Your task to perform on an android device: install app "Gmail" Image 0: 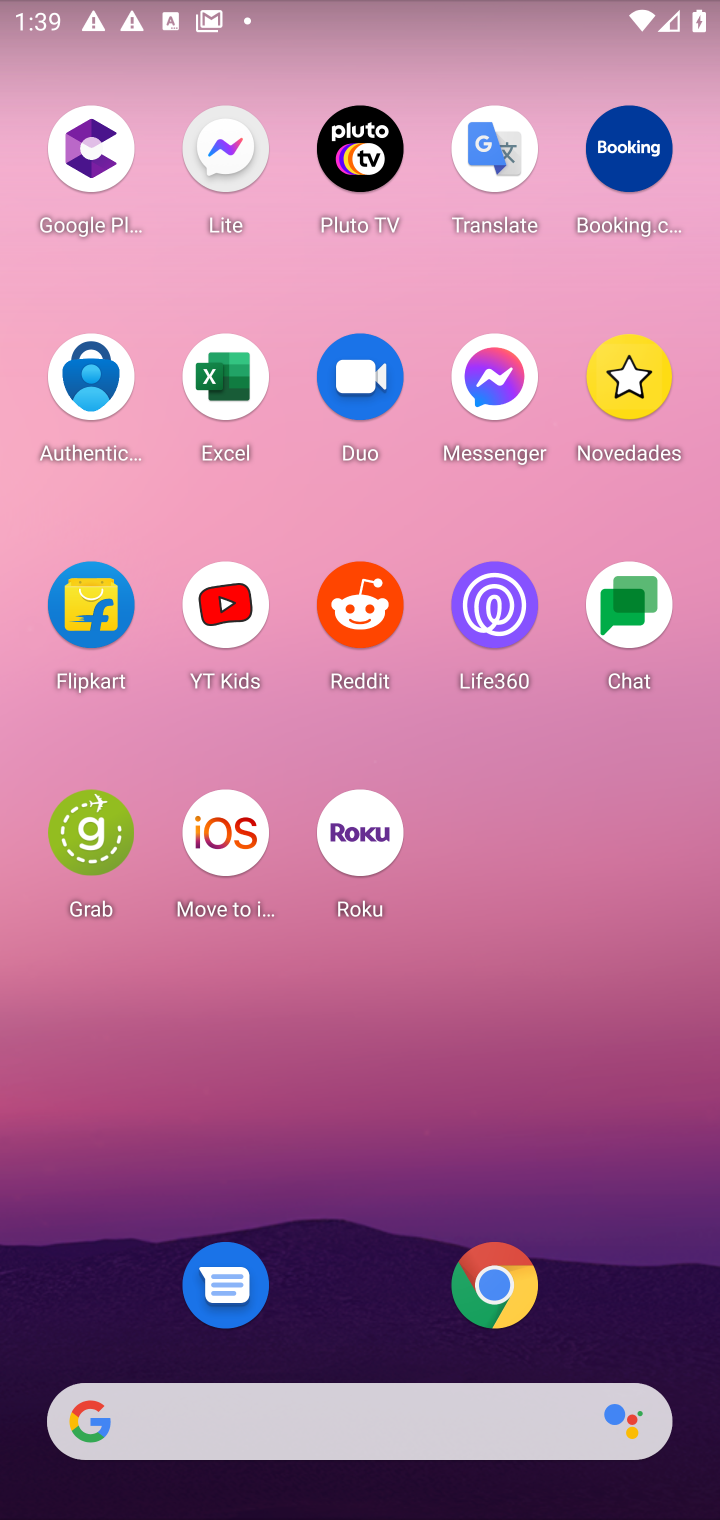
Step 0: drag from (600, 1195) to (433, 237)
Your task to perform on an android device: install app "Gmail" Image 1: 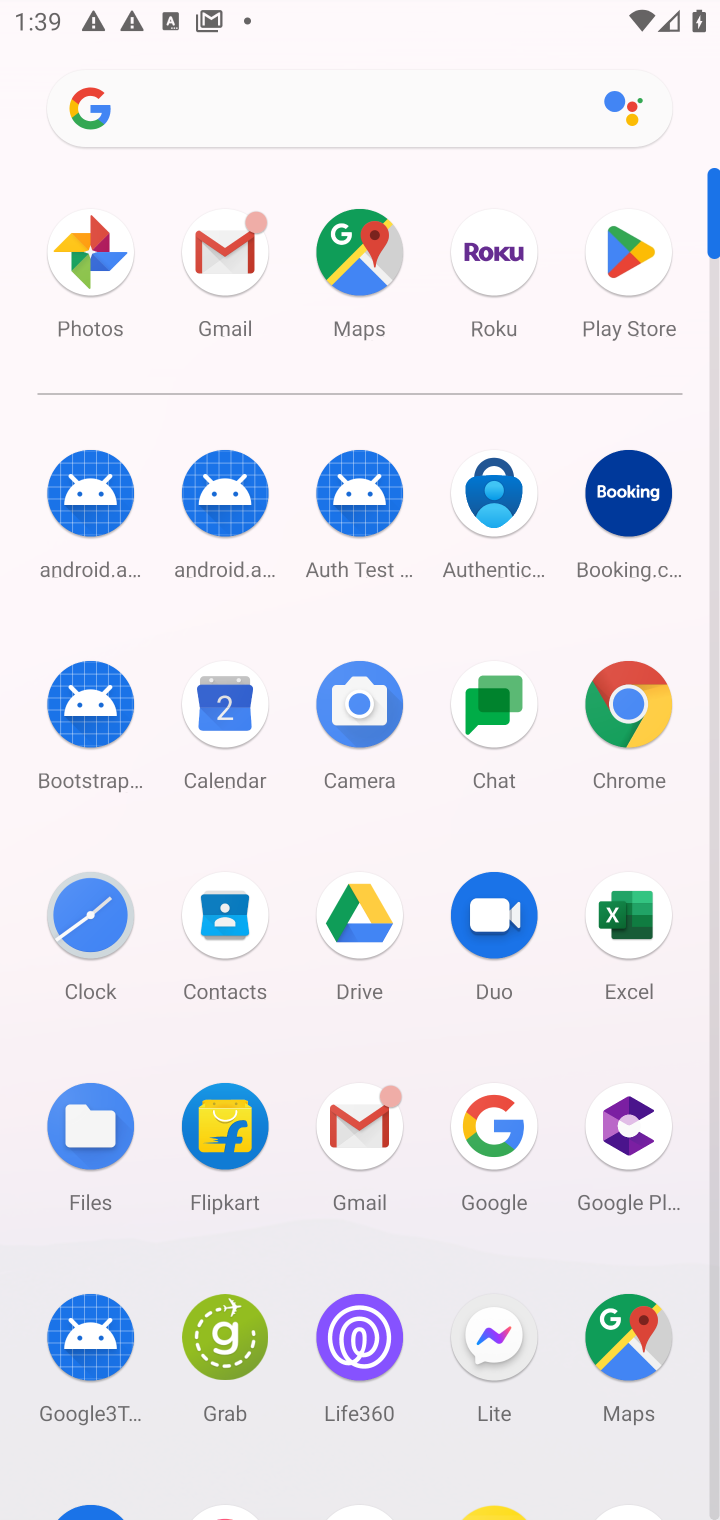
Step 1: drag from (437, 1260) to (525, 484)
Your task to perform on an android device: install app "Gmail" Image 2: 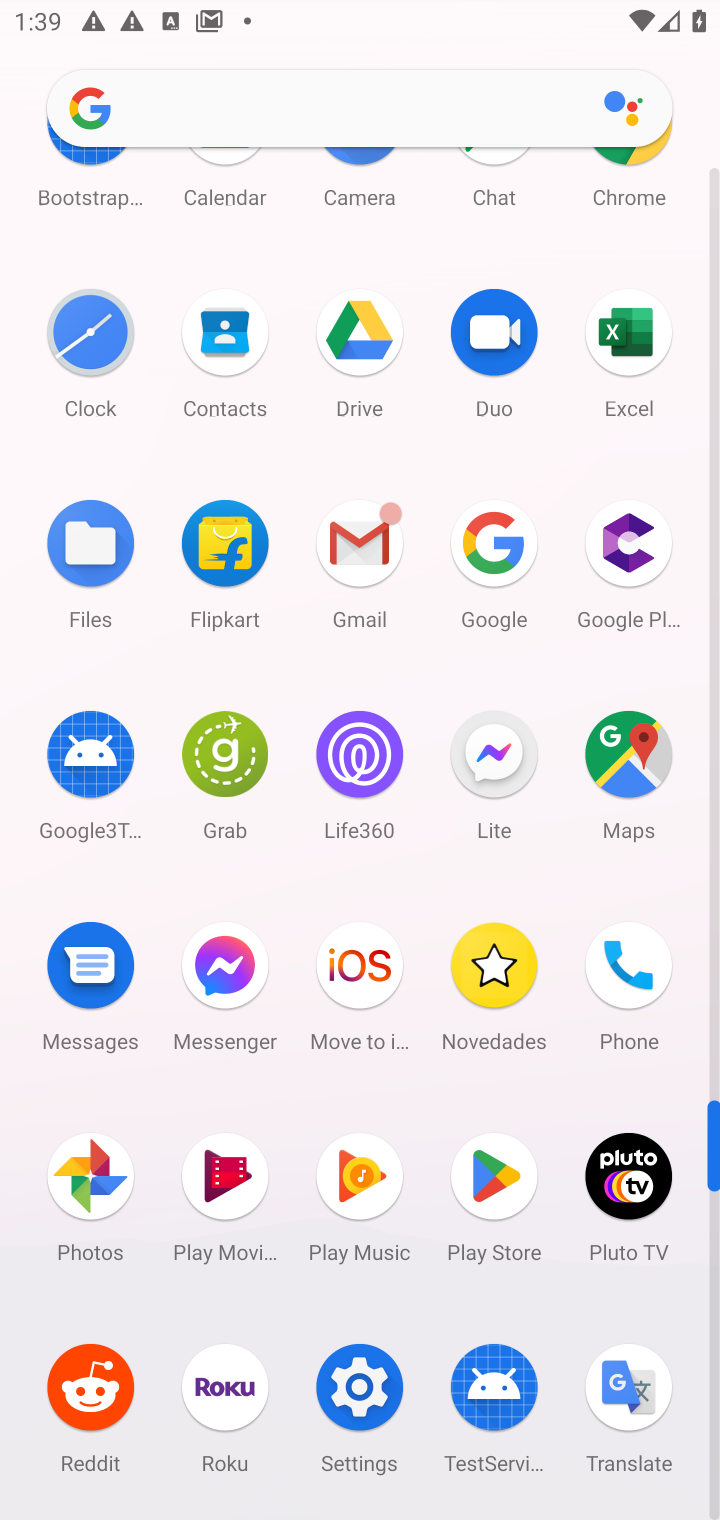
Step 2: click (516, 1179)
Your task to perform on an android device: install app "Gmail" Image 3: 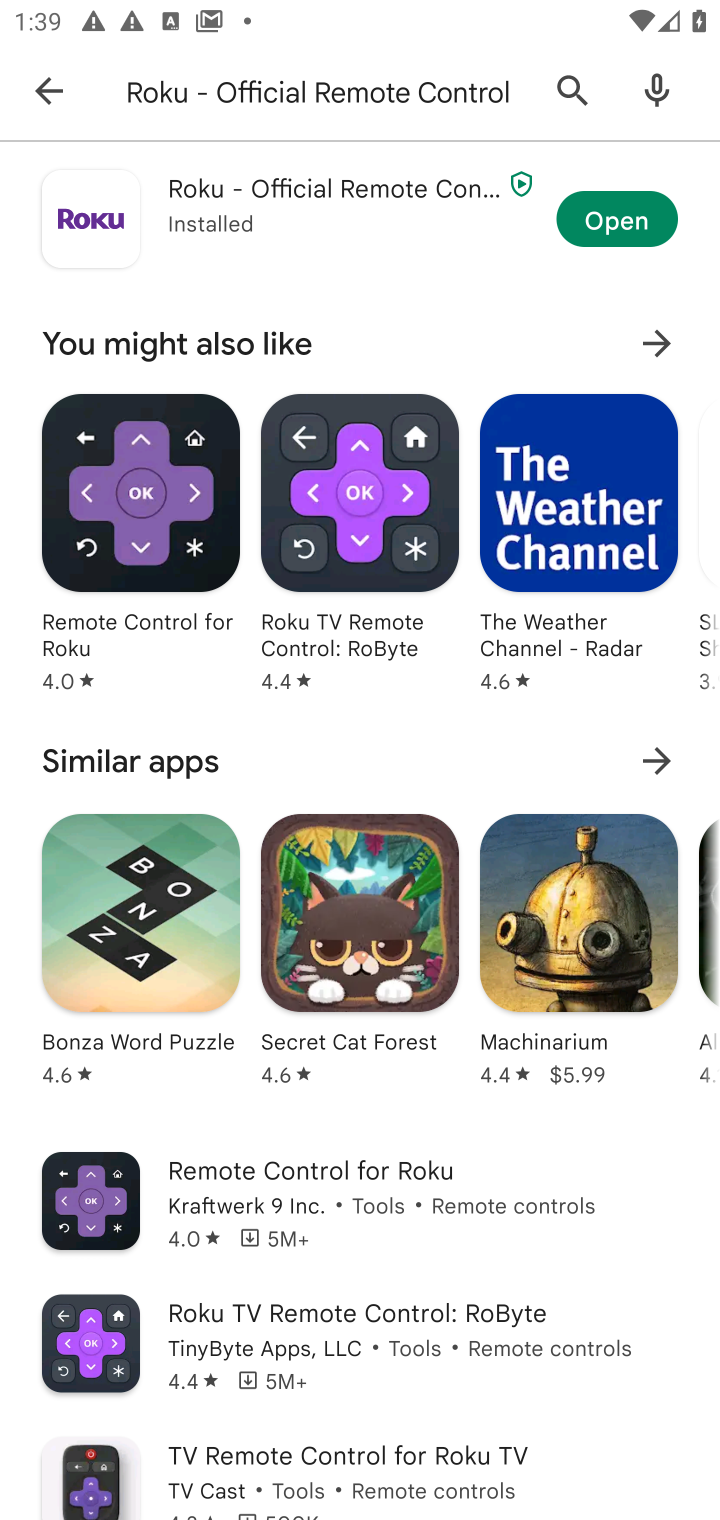
Step 3: click (485, 89)
Your task to perform on an android device: install app "Gmail" Image 4: 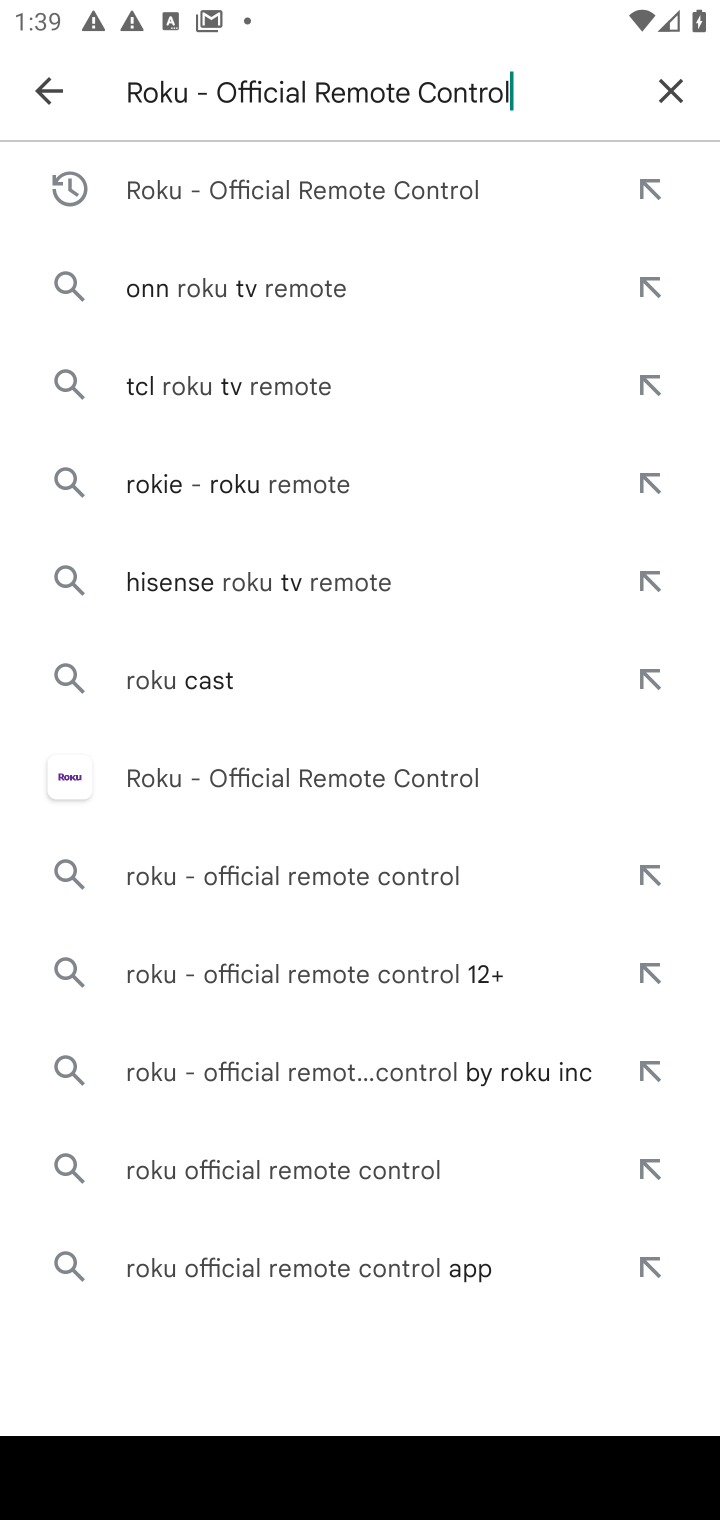
Step 4: click (679, 87)
Your task to perform on an android device: install app "Gmail" Image 5: 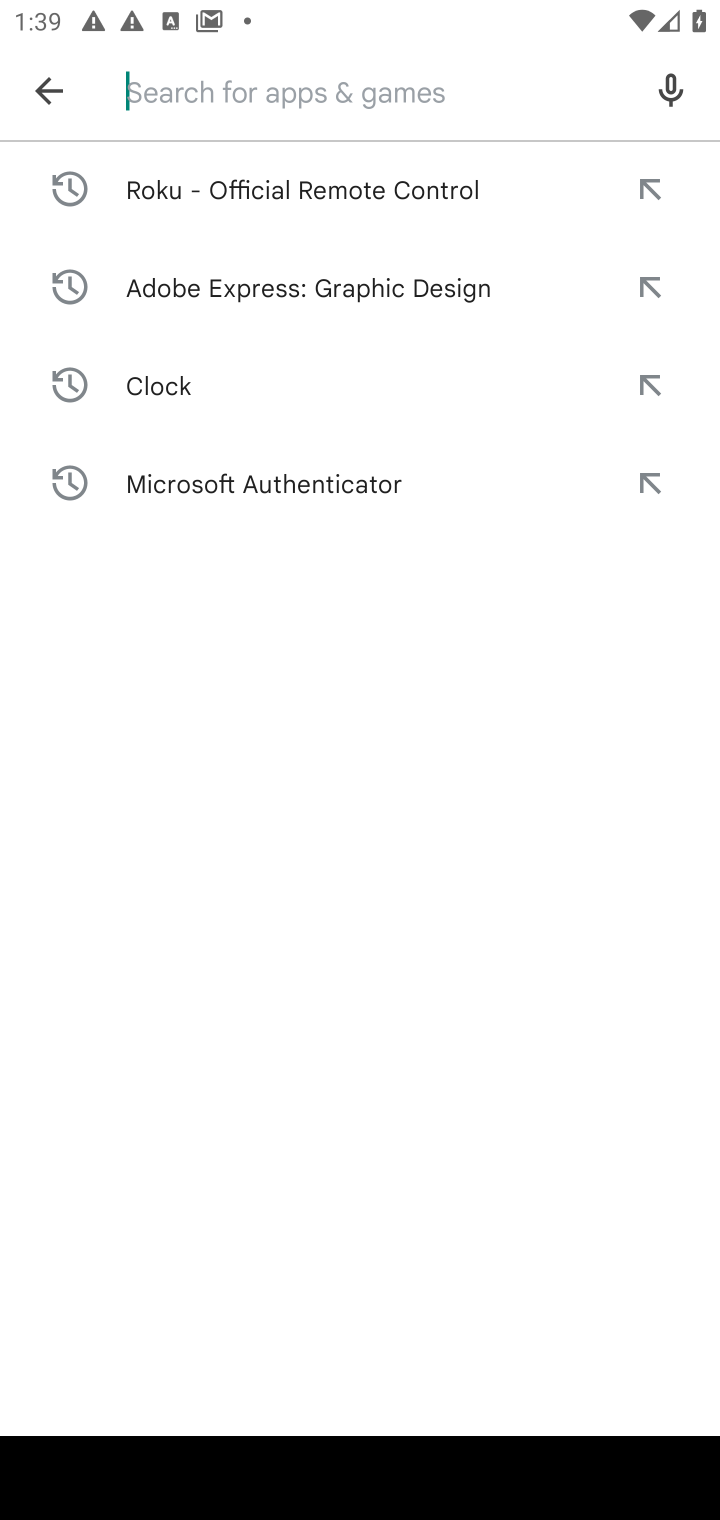
Step 5: type "Gmail"
Your task to perform on an android device: install app "Gmail" Image 6: 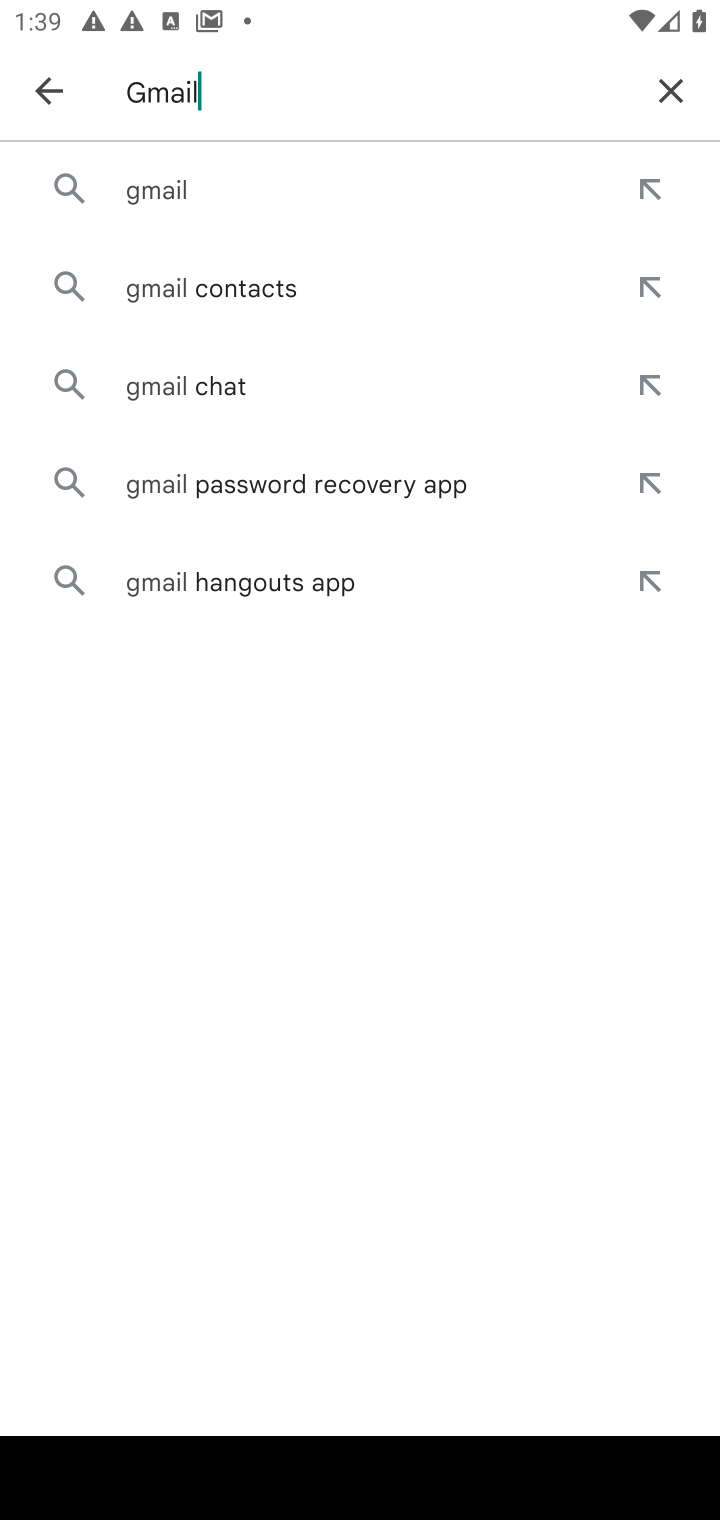
Step 6: press enter
Your task to perform on an android device: install app "Gmail" Image 7: 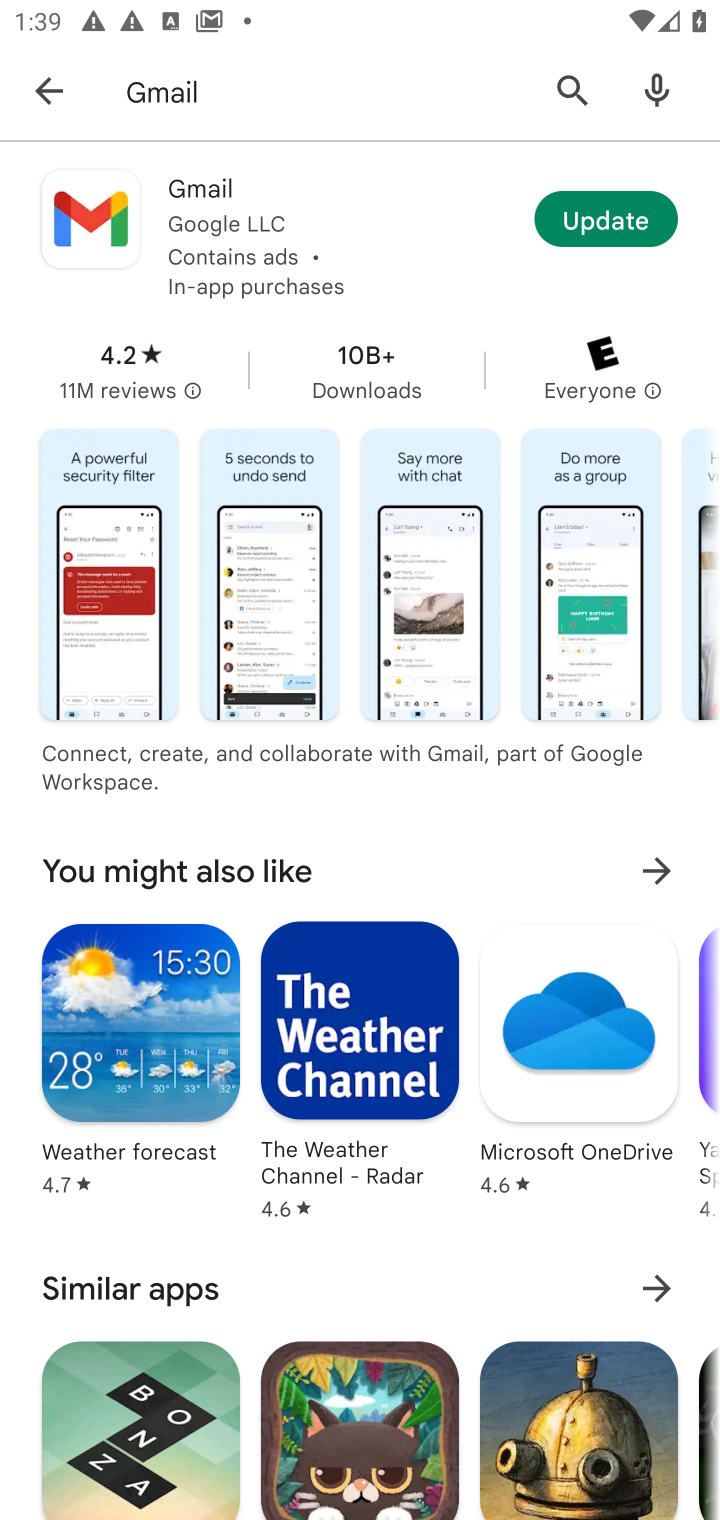
Step 7: click (310, 246)
Your task to perform on an android device: install app "Gmail" Image 8: 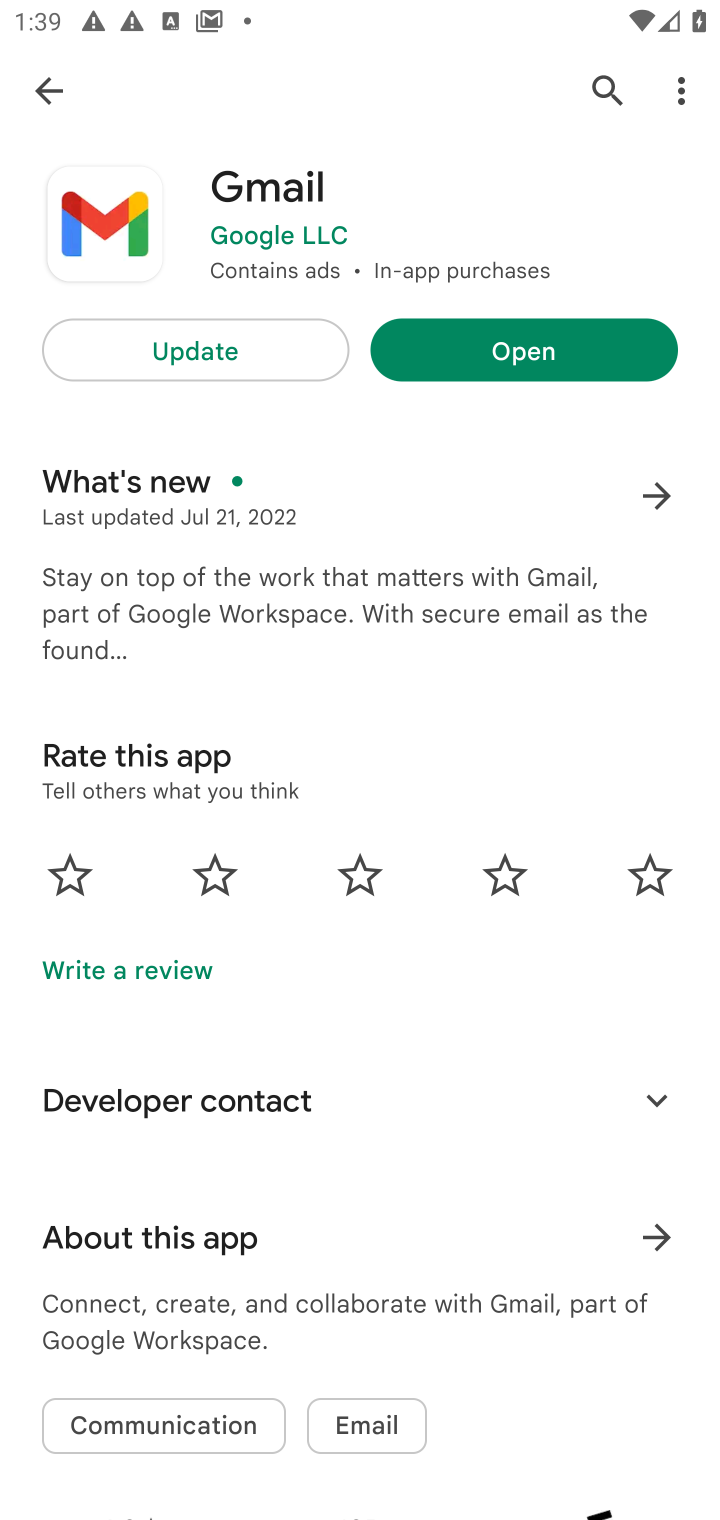
Step 8: task complete